Your task to perform on an android device: turn on the 12-hour format for clock Image 0: 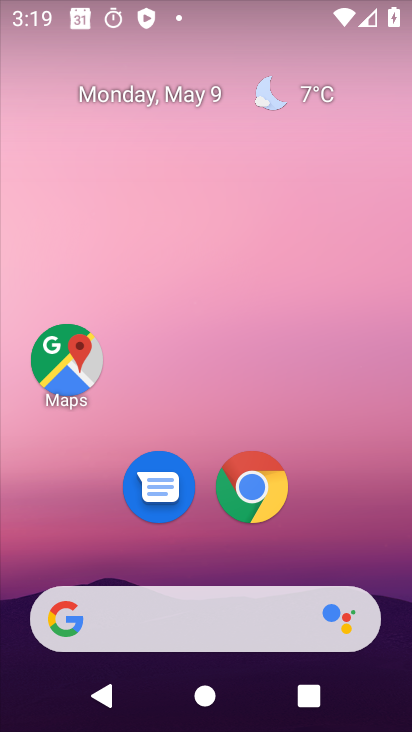
Step 0: drag from (280, 678) to (200, 27)
Your task to perform on an android device: turn on the 12-hour format for clock Image 1: 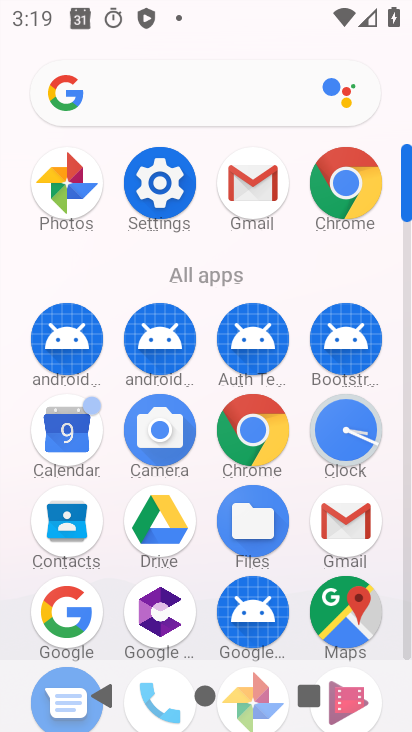
Step 1: click (330, 434)
Your task to perform on an android device: turn on the 12-hour format for clock Image 2: 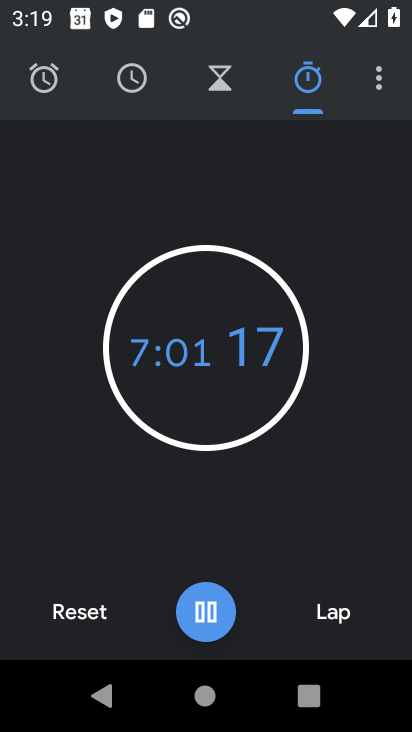
Step 2: click (369, 82)
Your task to perform on an android device: turn on the 12-hour format for clock Image 3: 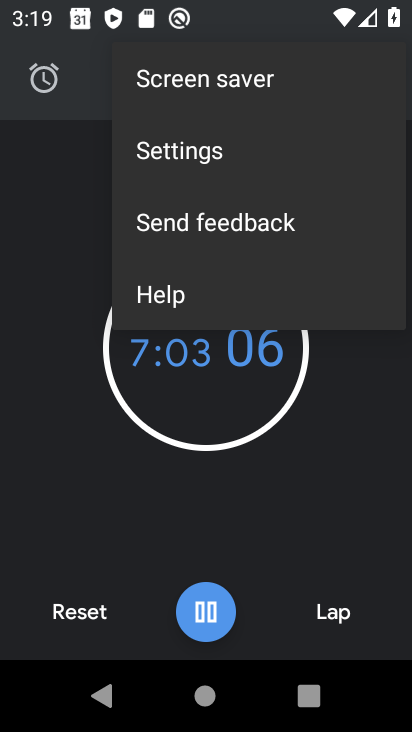
Step 3: click (251, 179)
Your task to perform on an android device: turn on the 12-hour format for clock Image 4: 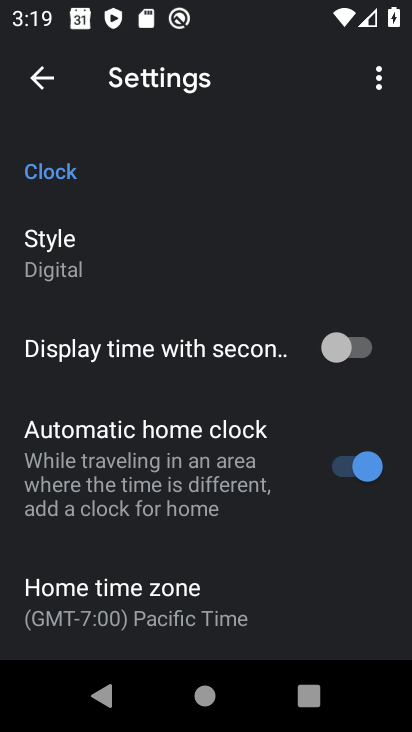
Step 4: drag from (237, 618) to (227, 201)
Your task to perform on an android device: turn on the 12-hour format for clock Image 5: 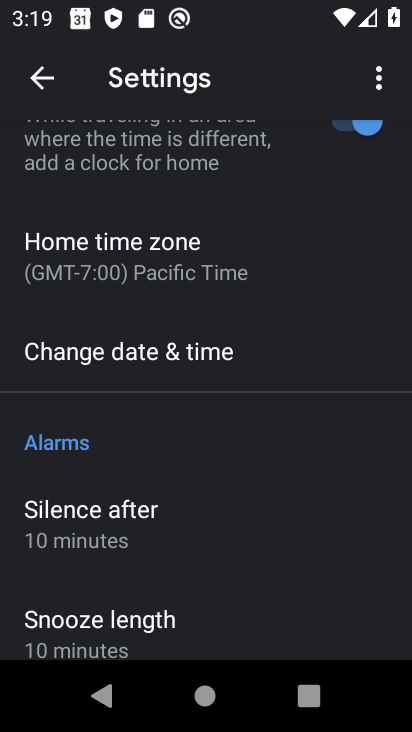
Step 5: click (175, 358)
Your task to perform on an android device: turn on the 12-hour format for clock Image 6: 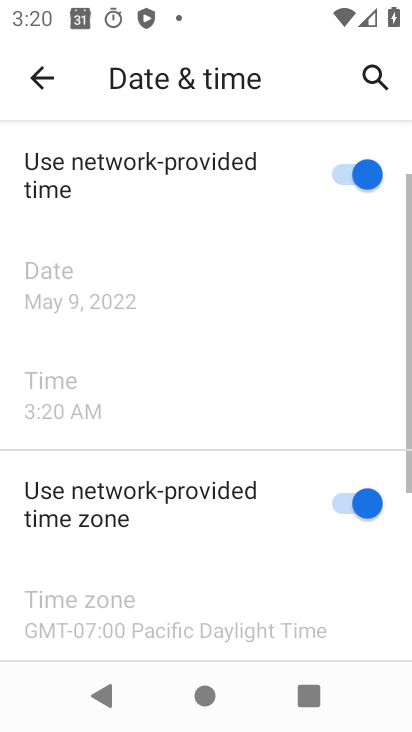
Step 6: task complete